Your task to perform on an android device: Open Chrome and go to settings Image 0: 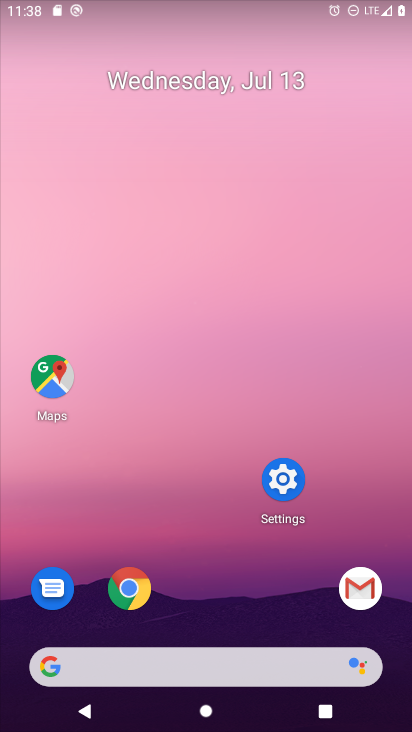
Step 0: click (142, 589)
Your task to perform on an android device: Open Chrome and go to settings Image 1: 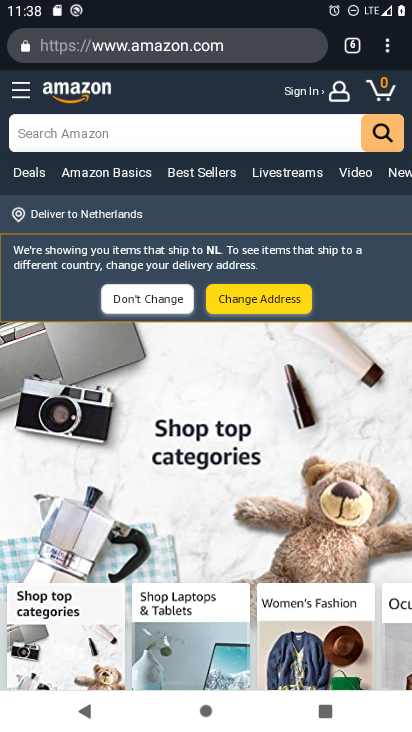
Step 1: click (380, 53)
Your task to perform on an android device: Open Chrome and go to settings Image 2: 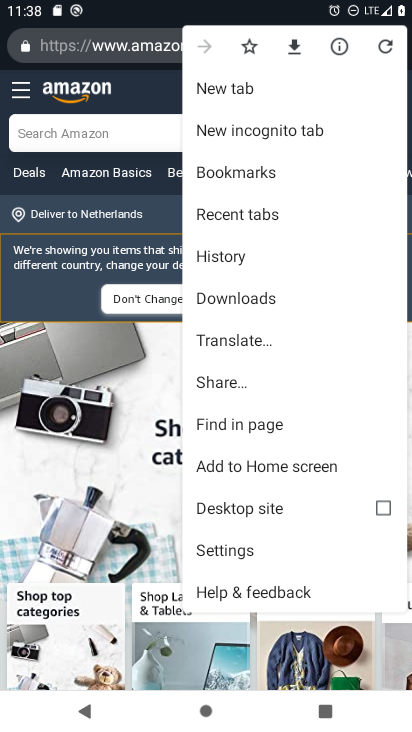
Step 2: click (246, 546)
Your task to perform on an android device: Open Chrome and go to settings Image 3: 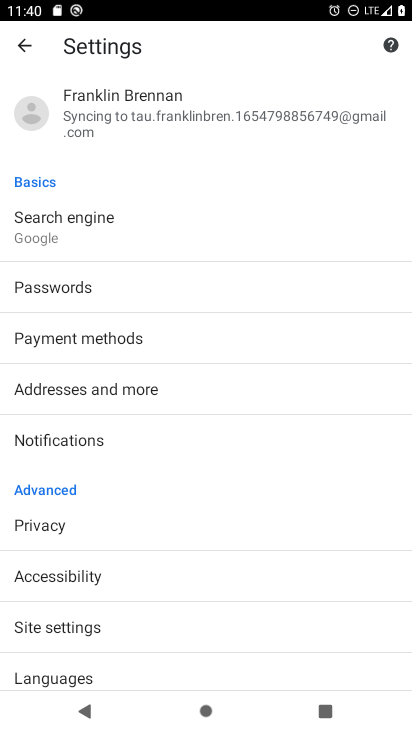
Step 3: task complete